Your task to perform on an android device: Show me popular videos on Youtube Image 0: 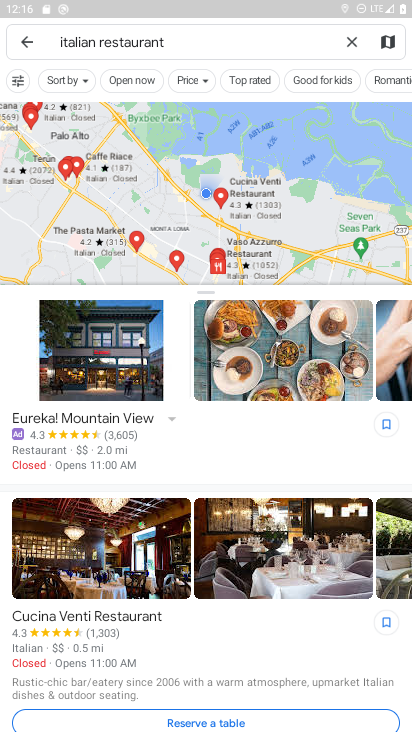
Step 0: press home button
Your task to perform on an android device: Show me popular videos on Youtube Image 1: 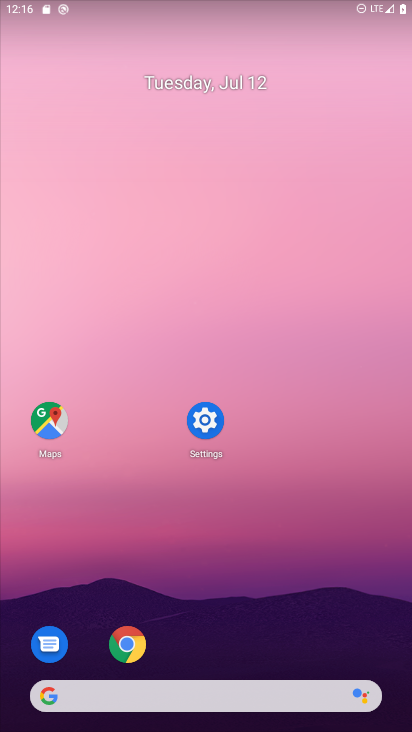
Step 1: drag from (384, 668) to (287, 185)
Your task to perform on an android device: Show me popular videos on Youtube Image 2: 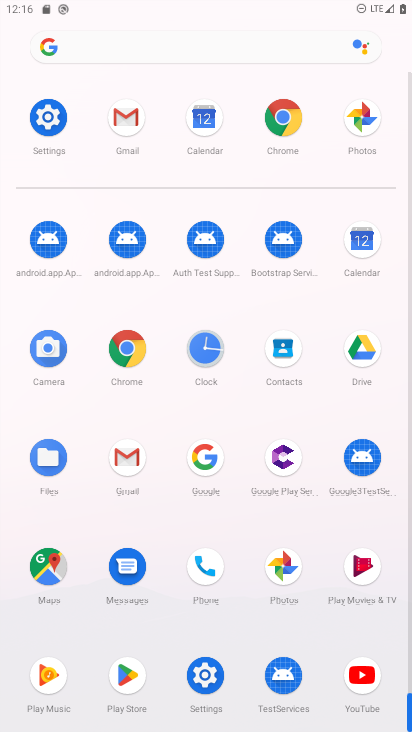
Step 2: click (361, 667)
Your task to perform on an android device: Show me popular videos on Youtube Image 3: 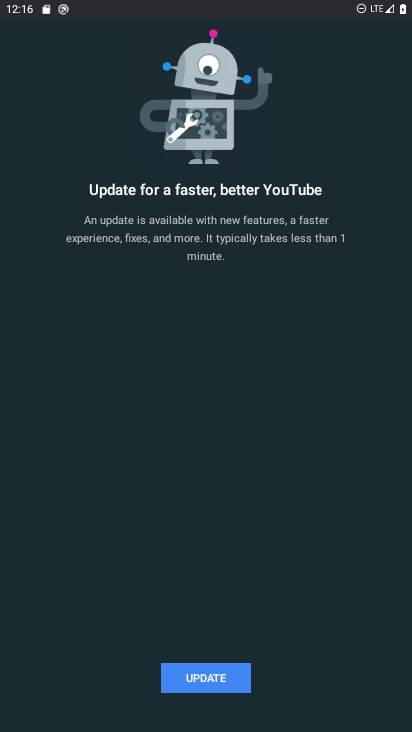
Step 3: click (219, 675)
Your task to perform on an android device: Show me popular videos on Youtube Image 4: 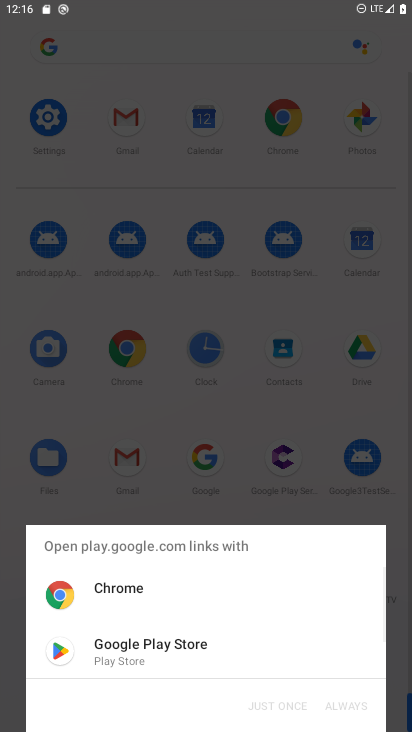
Step 4: click (123, 638)
Your task to perform on an android device: Show me popular videos on Youtube Image 5: 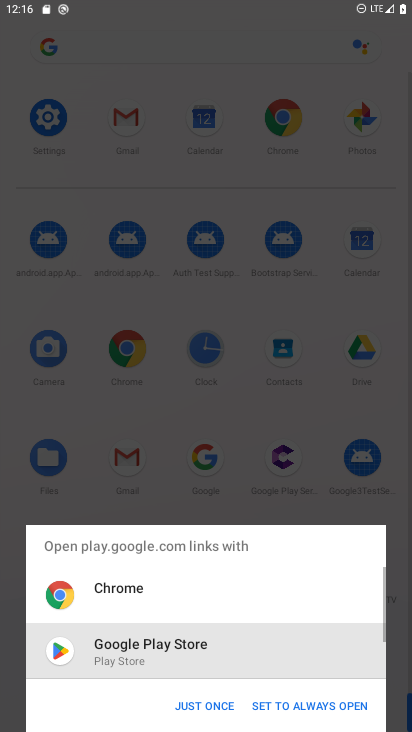
Step 5: click (209, 704)
Your task to perform on an android device: Show me popular videos on Youtube Image 6: 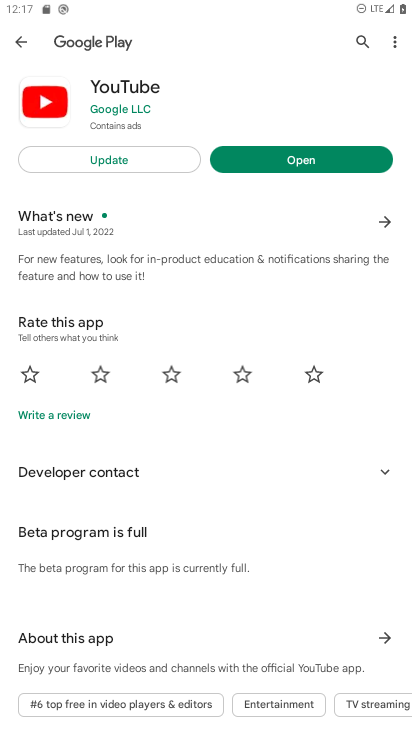
Step 6: click (131, 166)
Your task to perform on an android device: Show me popular videos on Youtube Image 7: 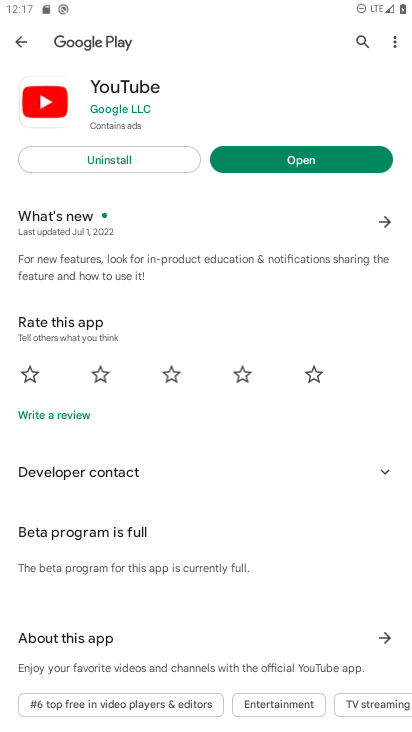
Step 7: click (254, 156)
Your task to perform on an android device: Show me popular videos on Youtube Image 8: 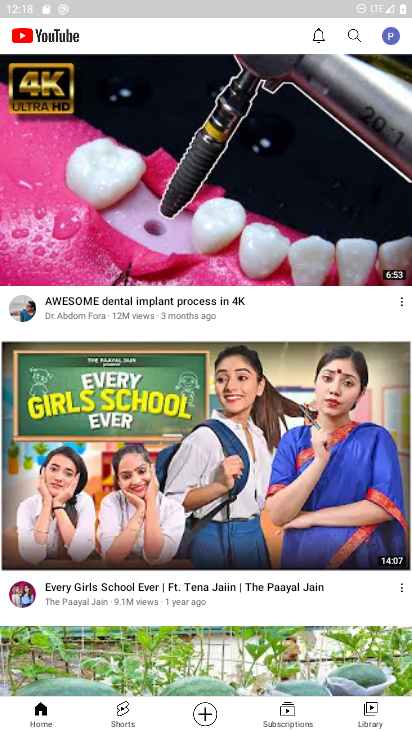
Step 8: click (348, 33)
Your task to perform on an android device: Show me popular videos on Youtube Image 9: 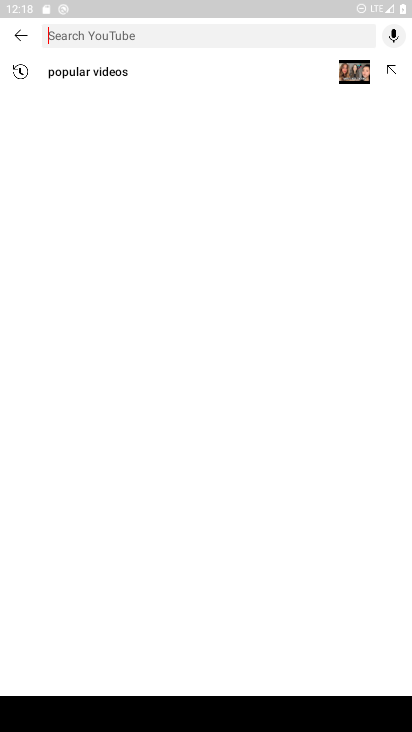
Step 9: click (139, 73)
Your task to perform on an android device: Show me popular videos on Youtube Image 10: 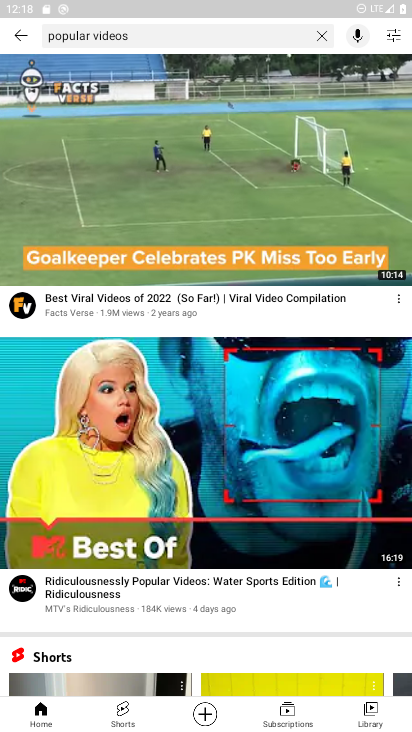
Step 10: task complete